Your task to perform on an android device: When is my next meeting? Image 0: 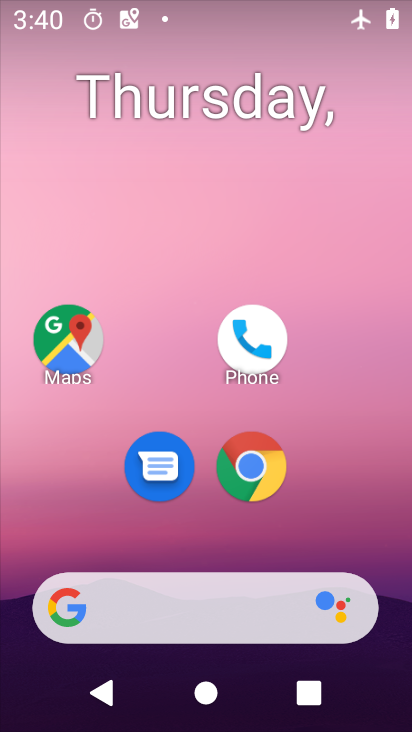
Step 0: drag from (183, 530) to (228, 196)
Your task to perform on an android device: When is my next meeting? Image 1: 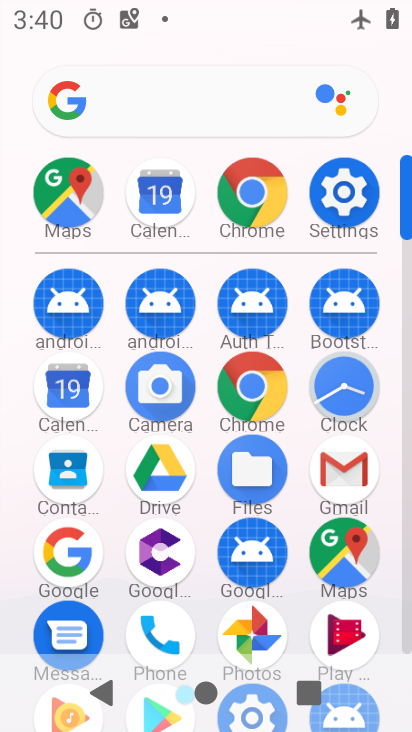
Step 1: click (69, 396)
Your task to perform on an android device: When is my next meeting? Image 2: 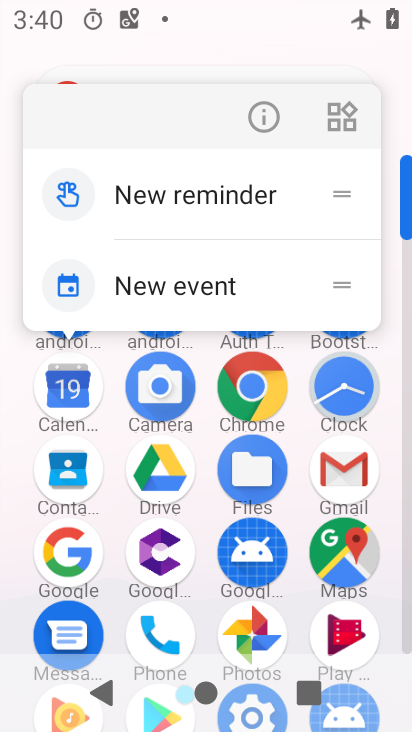
Step 2: click (254, 131)
Your task to perform on an android device: When is my next meeting? Image 3: 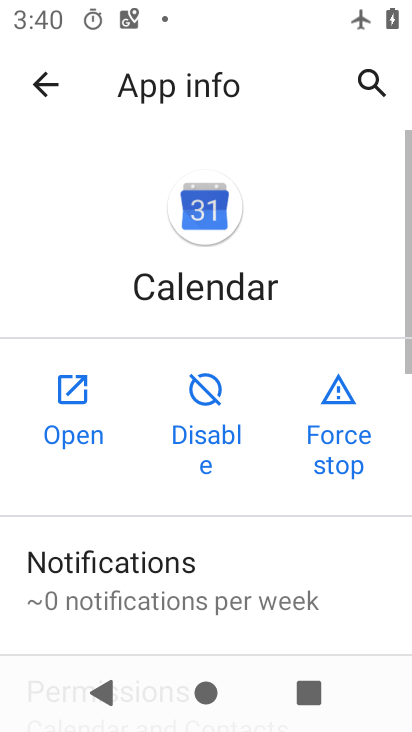
Step 3: click (73, 397)
Your task to perform on an android device: When is my next meeting? Image 4: 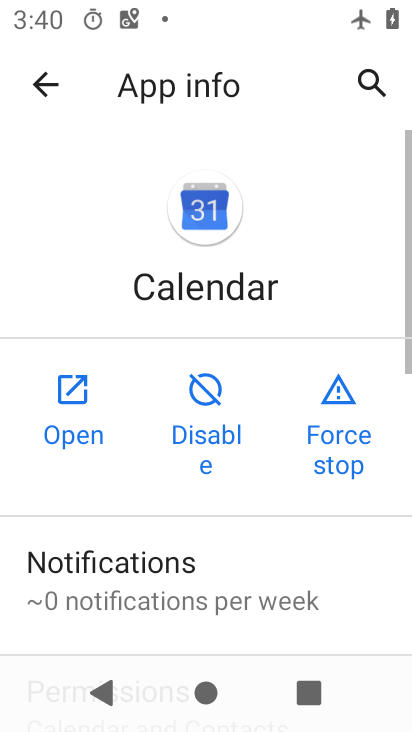
Step 4: click (73, 397)
Your task to perform on an android device: When is my next meeting? Image 5: 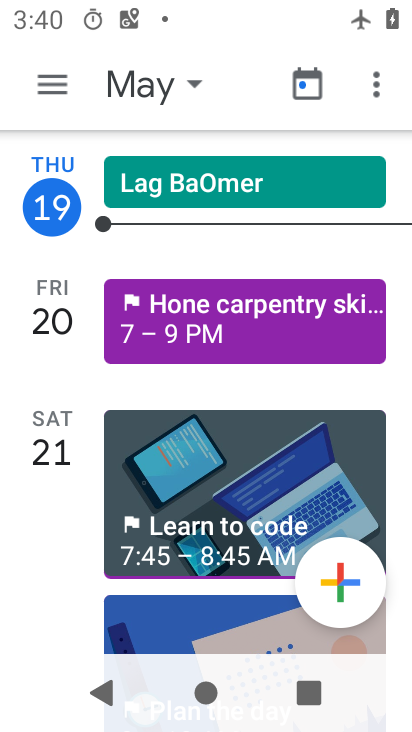
Step 5: drag from (191, 602) to (244, 155)
Your task to perform on an android device: When is my next meeting? Image 6: 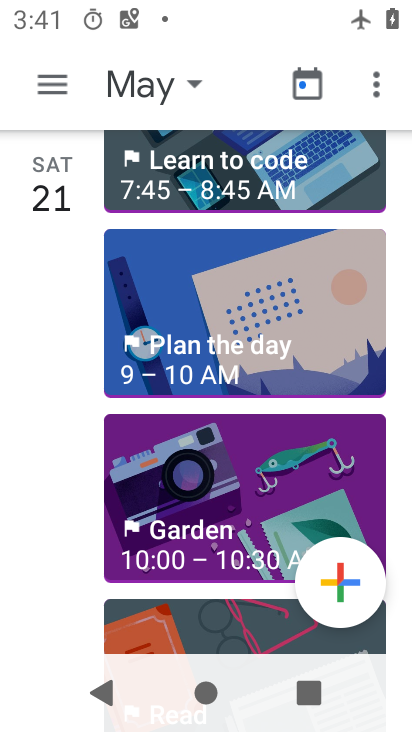
Step 6: click (166, 82)
Your task to perform on an android device: When is my next meeting? Image 7: 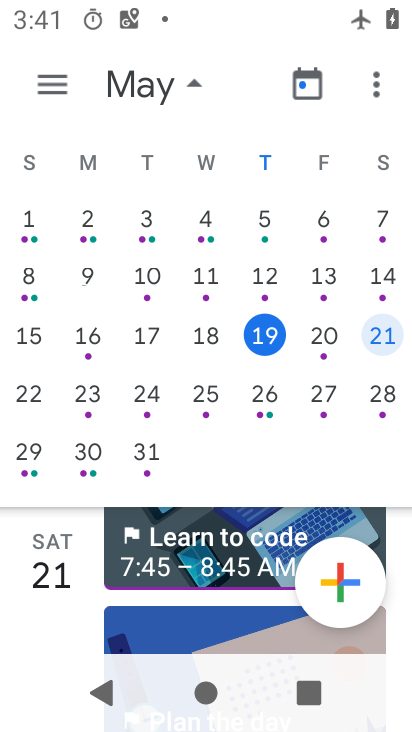
Step 7: click (241, 318)
Your task to perform on an android device: When is my next meeting? Image 8: 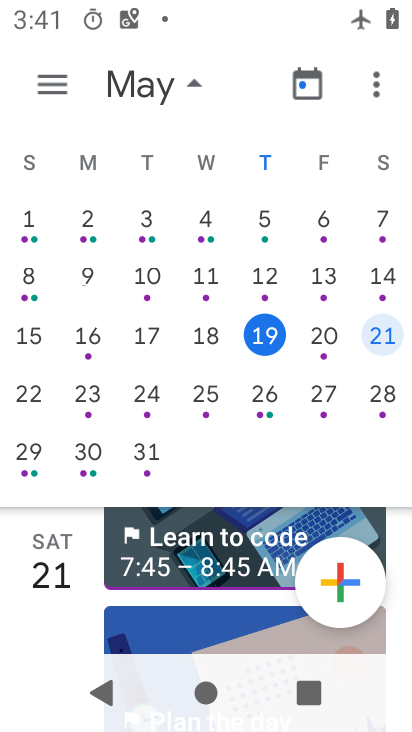
Step 8: click (254, 321)
Your task to perform on an android device: When is my next meeting? Image 9: 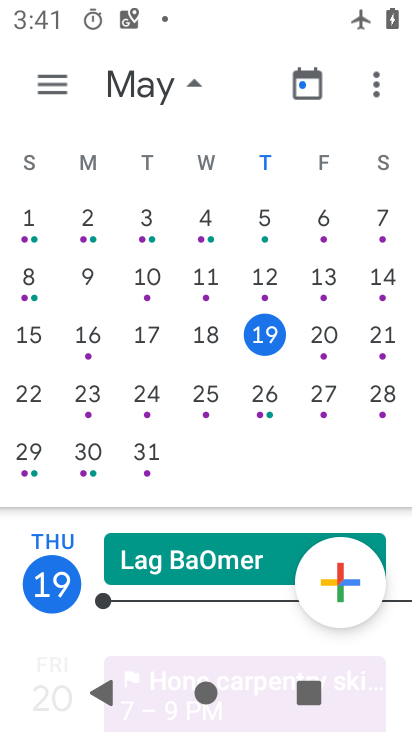
Step 9: drag from (234, 618) to (353, 219)
Your task to perform on an android device: When is my next meeting? Image 10: 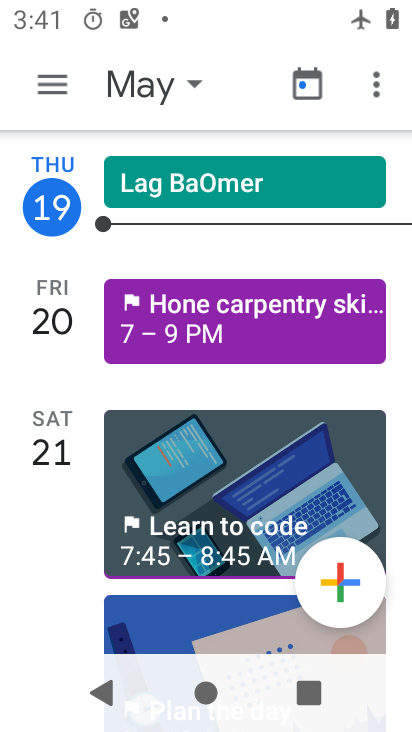
Step 10: click (59, 183)
Your task to perform on an android device: When is my next meeting? Image 11: 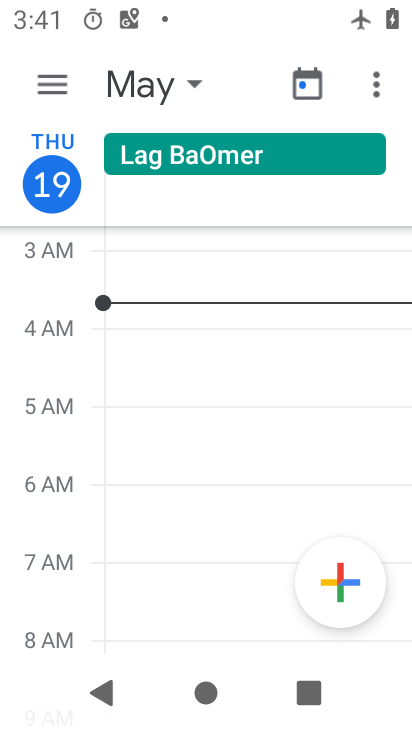
Step 11: task complete